Your task to perform on an android device: check storage Image 0: 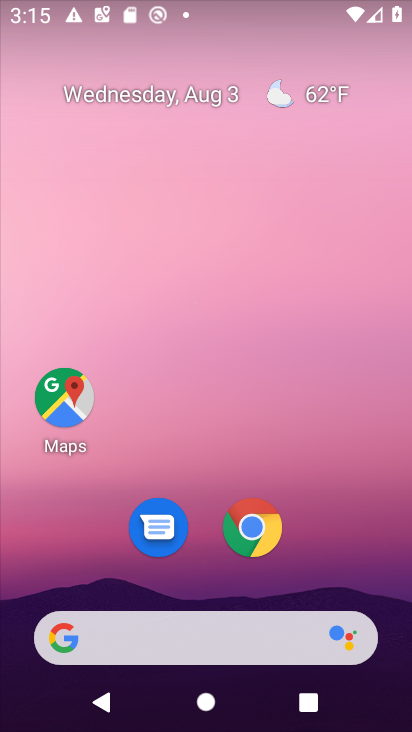
Step 0: drag from (307, 449) to (249, 76)
Your task to perform on an android device: check storage Image 1: 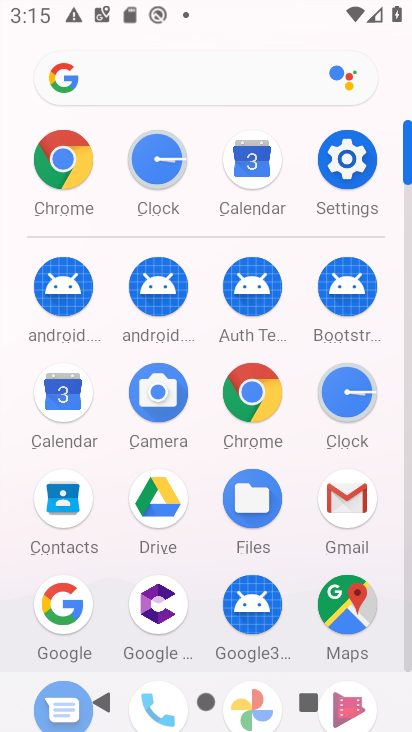
Step 1: click (351, 166)
Your task to perform on an android device: check storage Image 2: 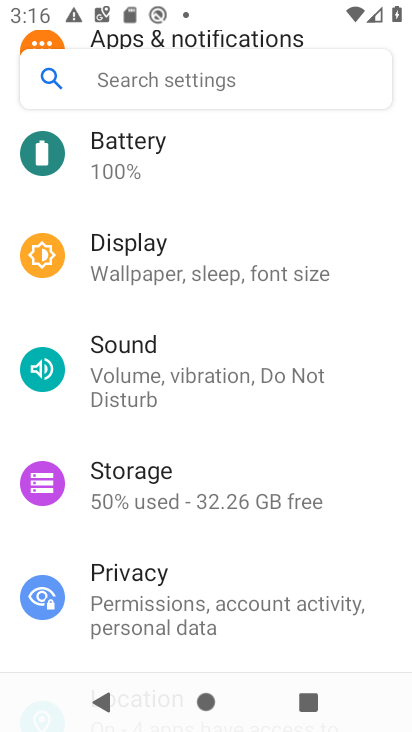
Step 2: drag from (290, 155) to (316, 584)
Your task to perform on an android device: check storage Image 3: 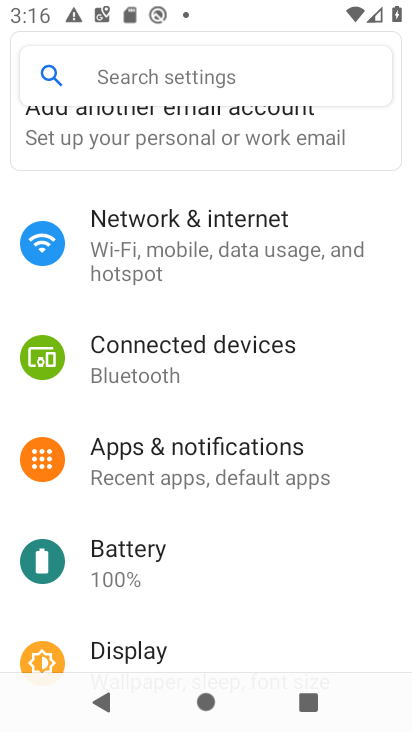
Step 3: drag from (326, 602) to (323, 162)
Your task to perform on an android device: check storage Image 4: 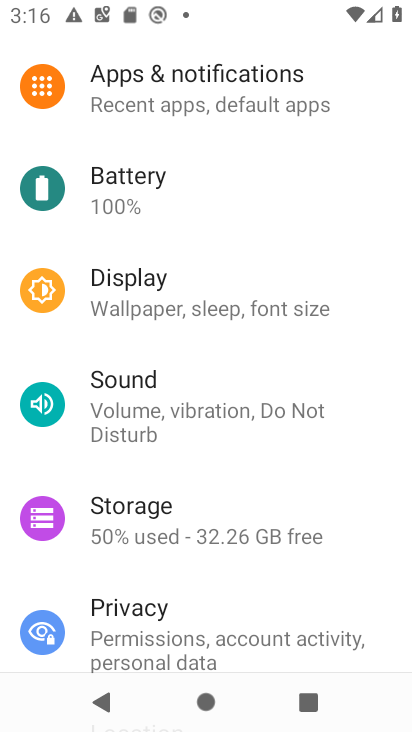
Step 4: click (165, 500)
Your task to perform on an android device: check storage Image 5: 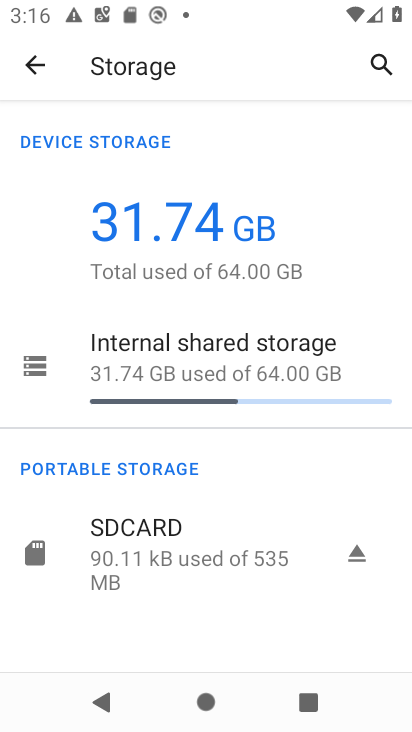
Step 5: task complete